Your task to perform on an android device: Search for razer blade on target.com, select the first entry, and add it to the cart. Image 0: 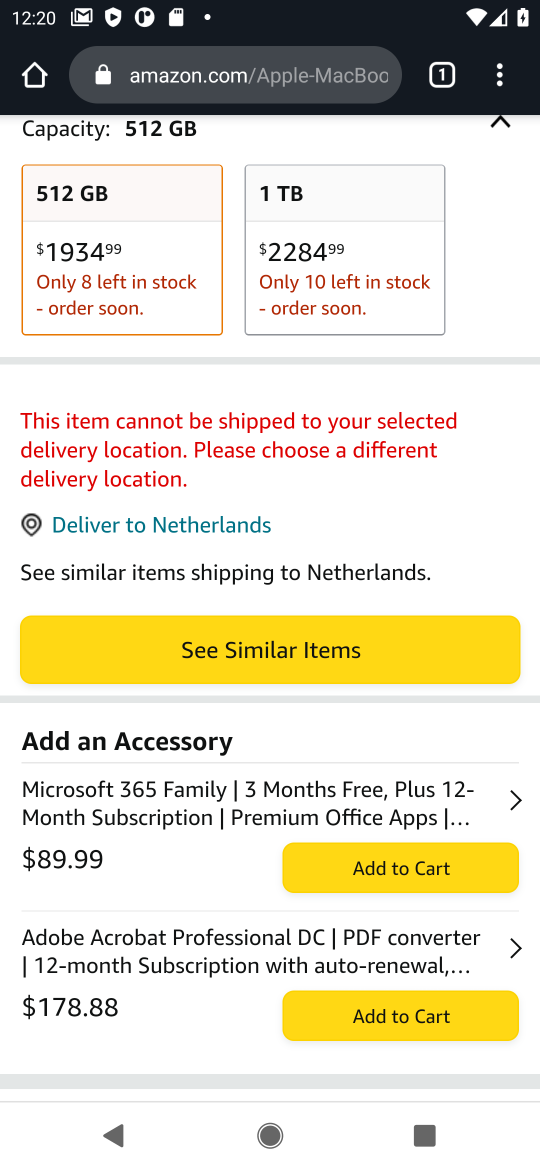
Step 0: press home button
Your task to perform on an android device: Search for razer blade on target.com, select the first entry, and add it to the cart. Image 1: 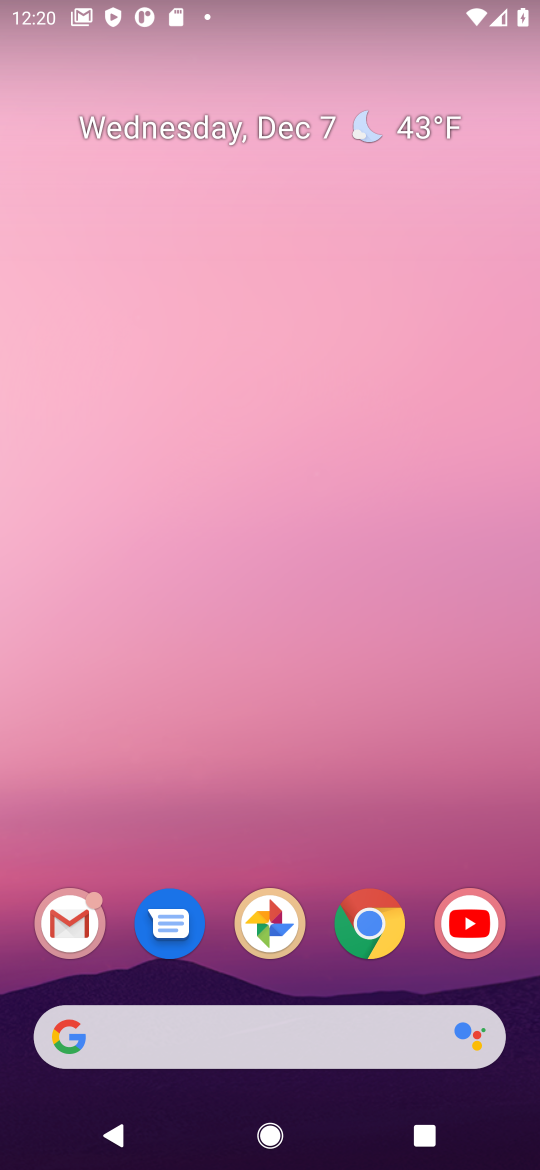
Step 1: click (348, 902)
Your task to perform on an android device: Search for razer blade on target.com, select the first entry, and add it to the cart. Image 2: 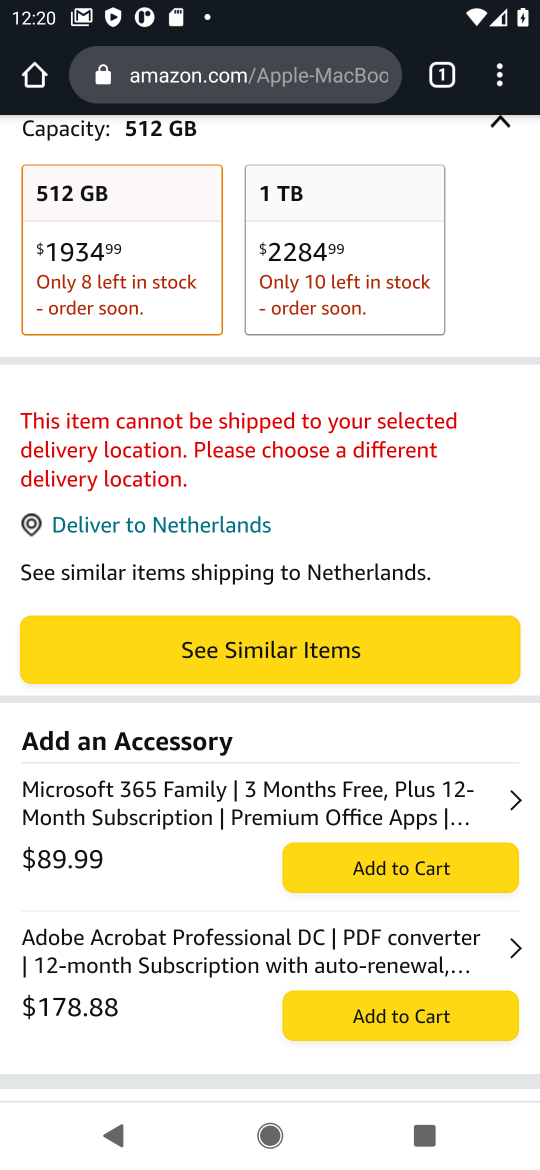
Step 2: click (297, 73)
Your task to perform on an android device: Search for razer blade on target.com, select the first entry, and add it to the cart. Image 3: 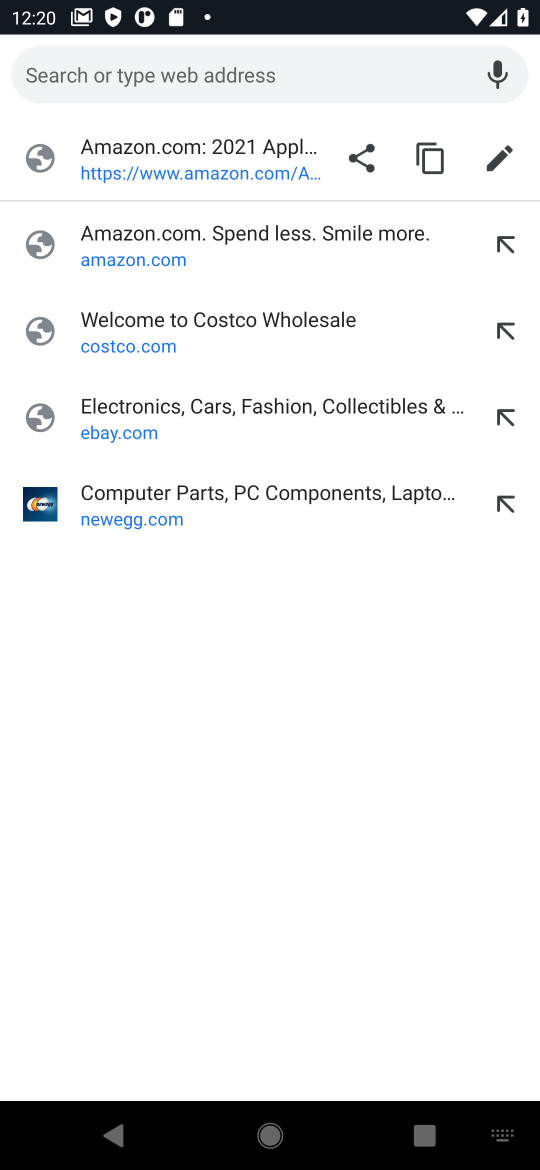
Step 3: type "target"
Your task to perform on an android device: Search for razer blade on target.com, select the first entry, and add it to the cart. Image 4: 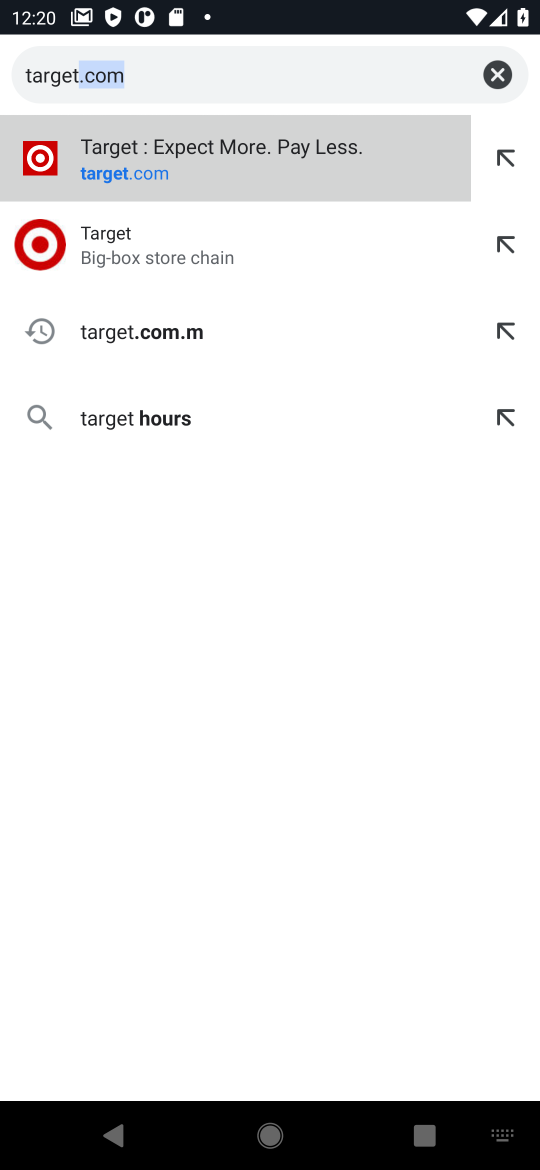
Step 4: click (111, 162)
Your task to perform on an android device: Search for razer blade on target.com, select the first entry, and add it to the cart. Image 5: 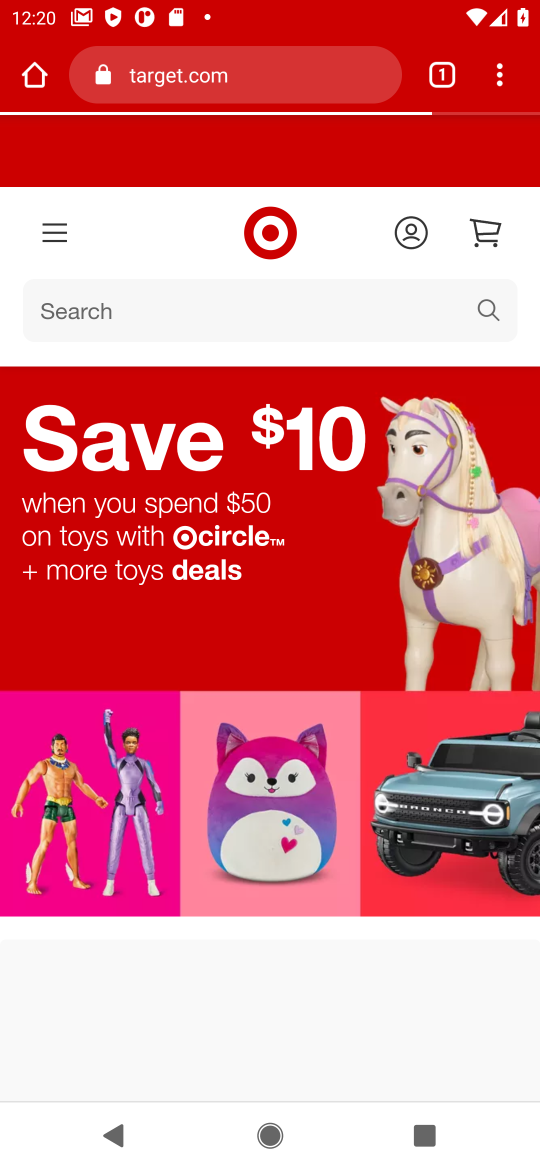
Step 5: click (319, 308)
Your task to perform on an android device: Search for razer blade on target.com, select the first entry, and add it to the cart. Image 6: 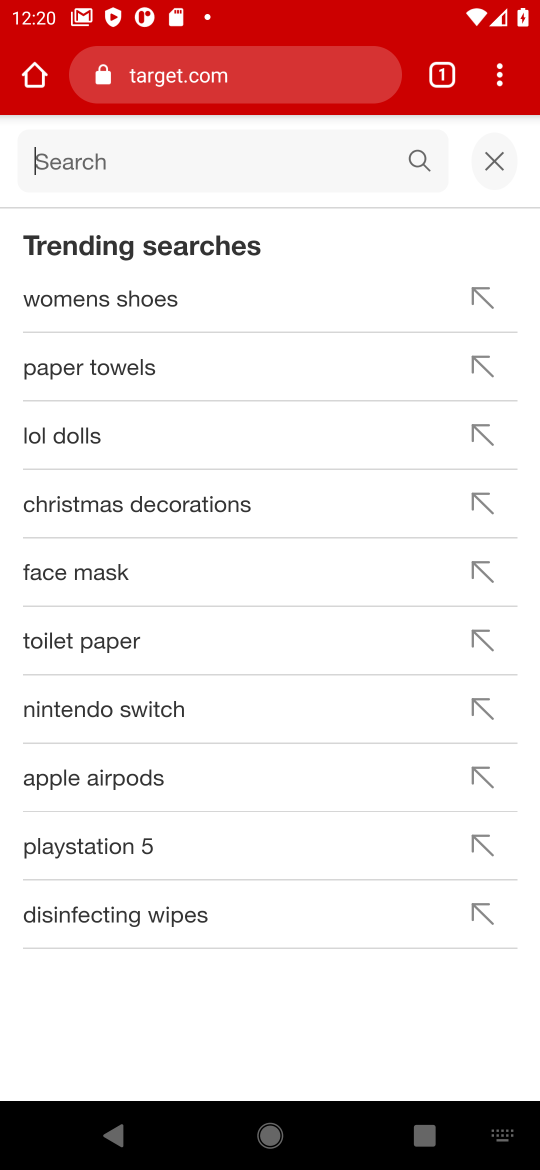
Step 6: type "razer blade"
Your task to perform on an android device: Search for razer blade on target.com, select the first entry, and add it to the cart. Image 7: 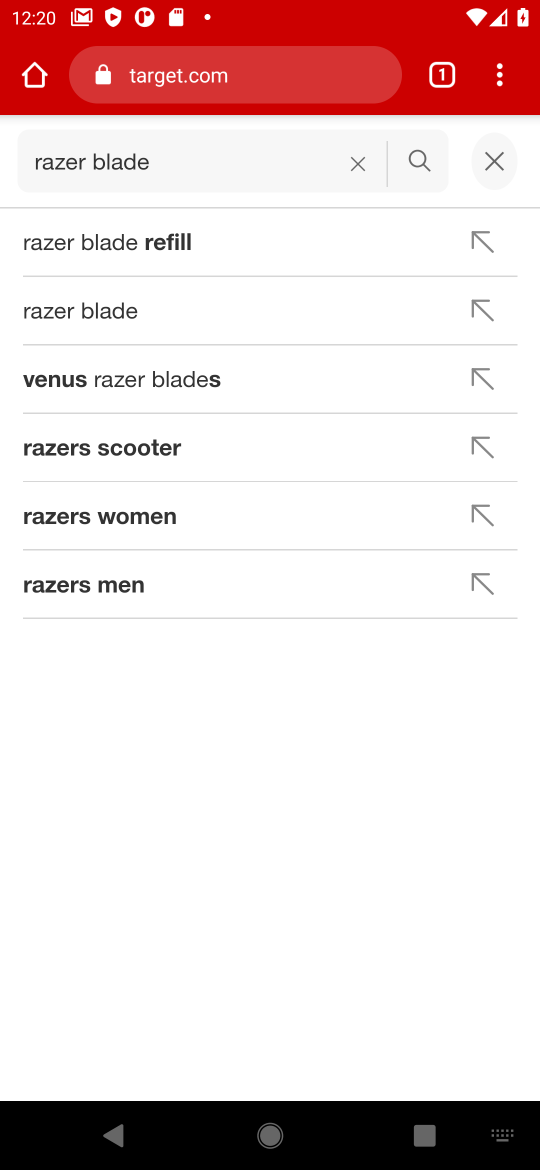
Step 7: click (127, 233)
Your task to perform on an android device: Search for razer blade on target.com, select the first entry, and add it to the cart. Image 8: 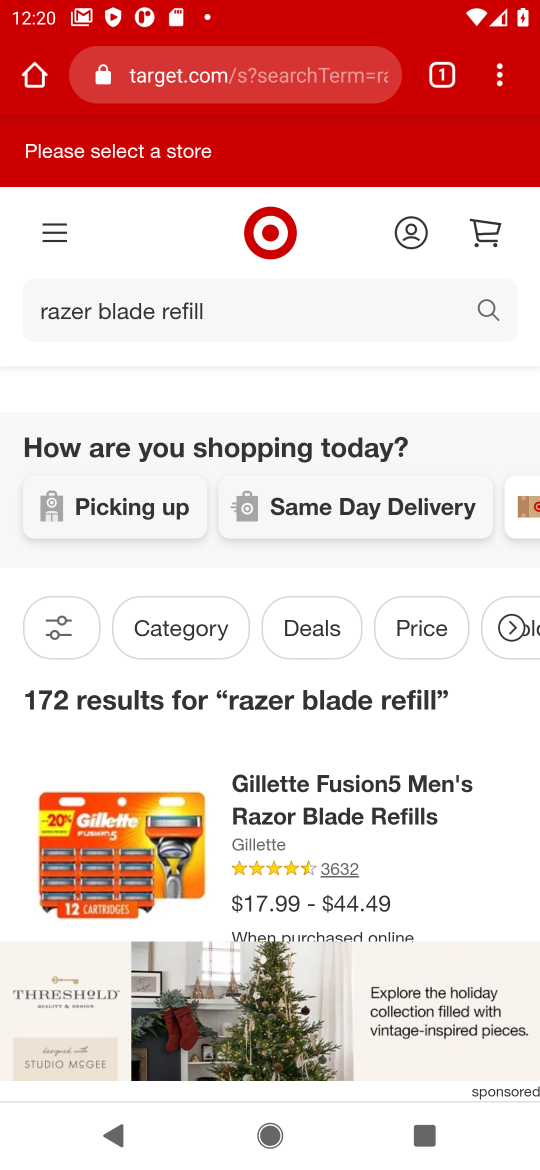
Step 8: click (129, 849)
Your task to perform on an android device: Search for razer blade on target.com, select the first entry, and add it to the cart. Image 9: 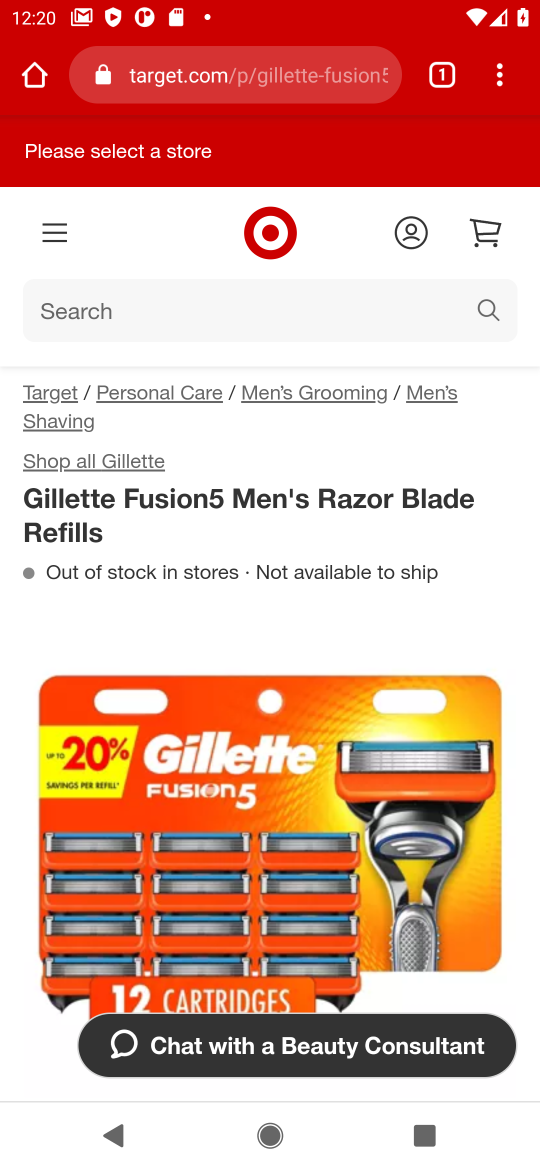
Step 9: drag from (382, 952) to (330, 259)
Your task to perform on an android device: Search for razer blade on target.com, select the first entry, and add it to the cart. Image 10: 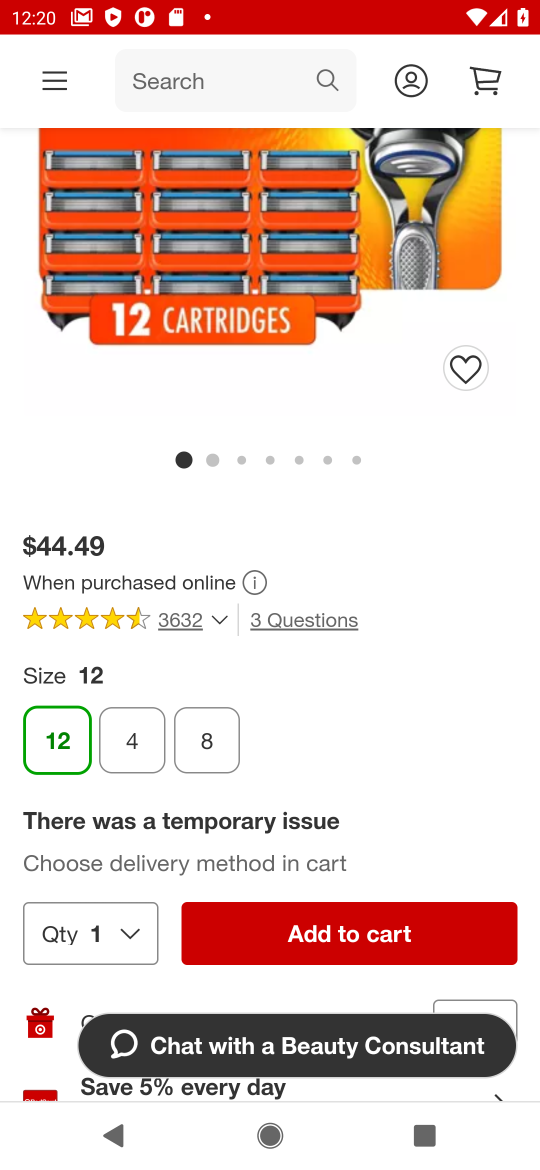
Step 10: click (358, 937)
Your task to perform on an android device: Search for razer blade on target.com, select the first entry, and add it to the cart. Image 11: 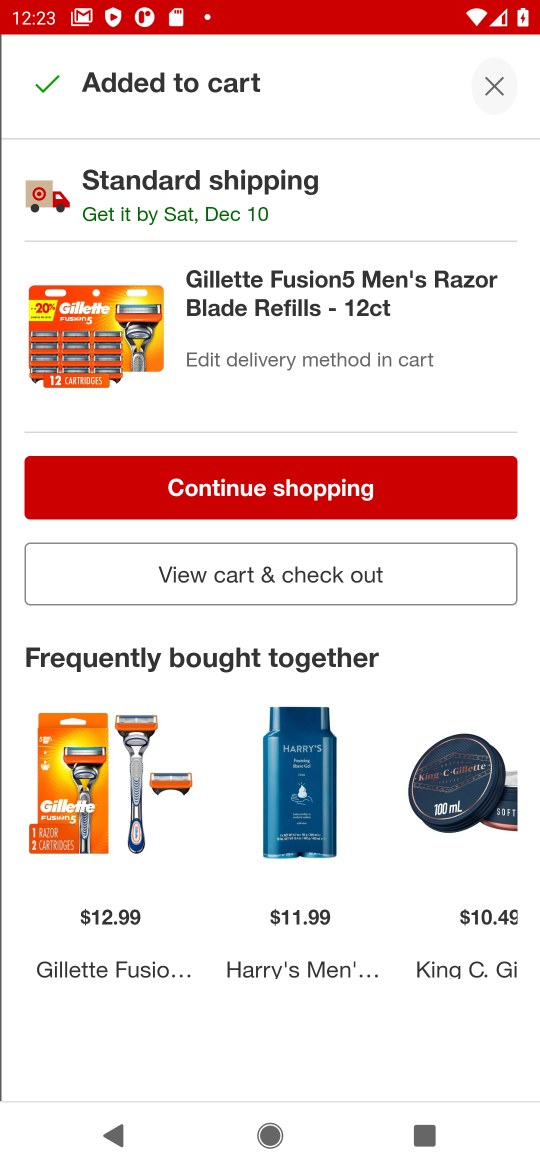
Step 11: task complete